Your task to perform on an android device: Open Reddit.com Image 0: 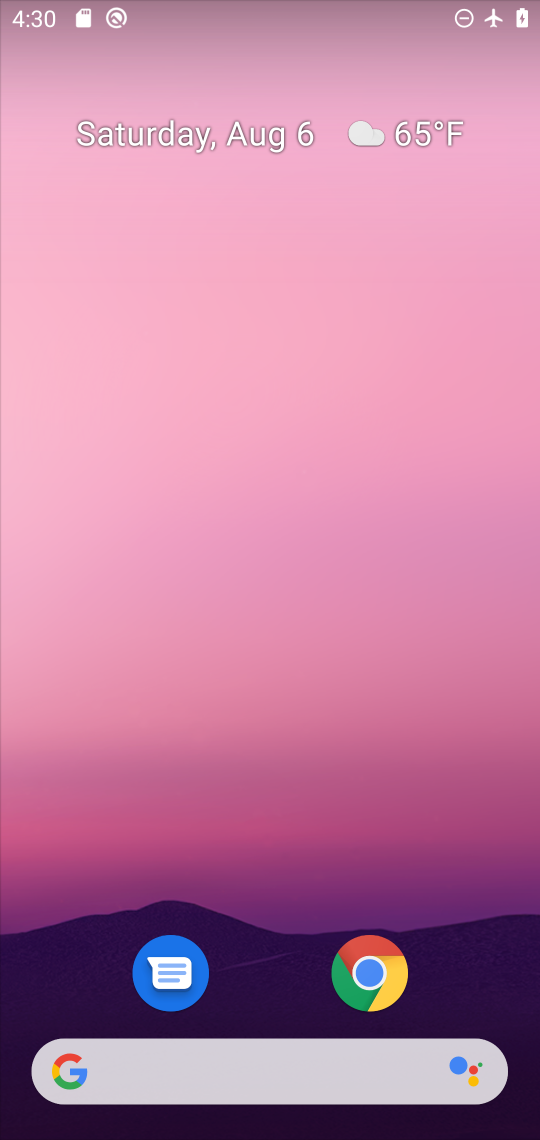
Step 0: drag from (271, 944) to (287, 166)
Your task to perform on an android device: Open Reddit.com Image 1: 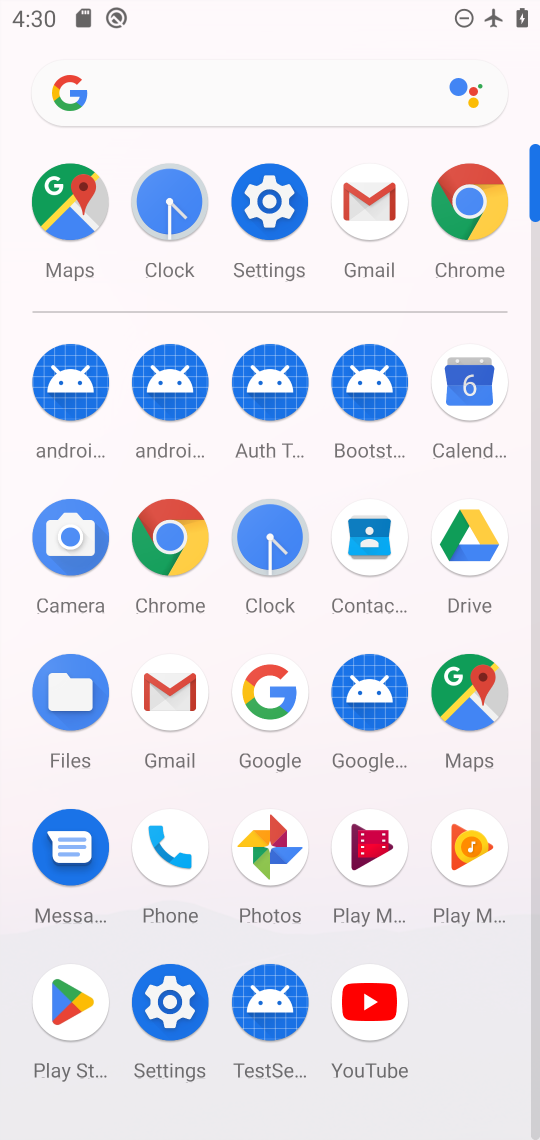
Step 1: click (169, 535)
Your task to perform on an android device: Open Reddit.com Image 2: 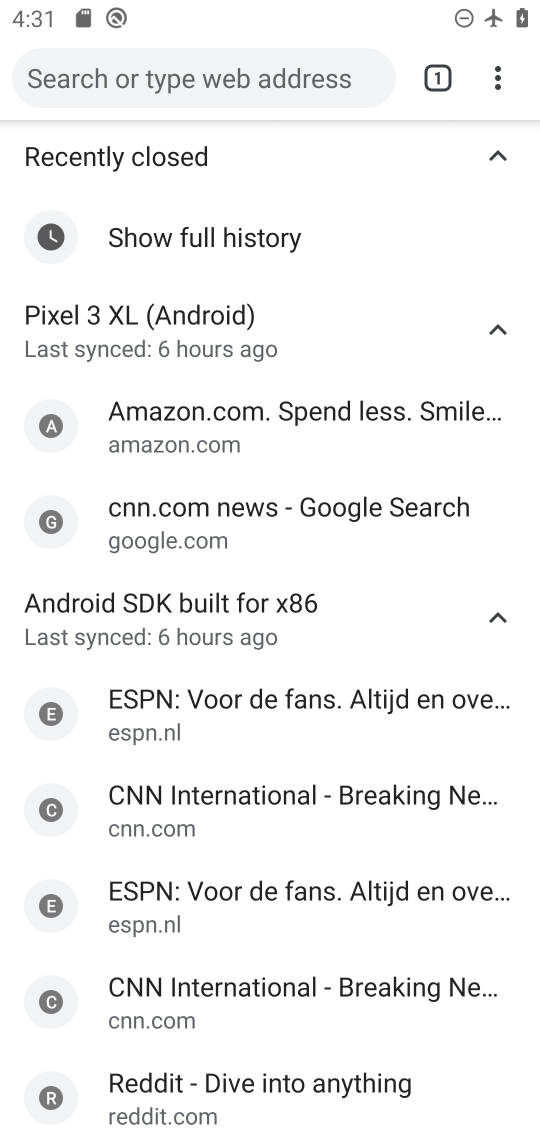
Step 2: click (233, 84)
Your task to perform on an android device: Open Reddit.com Image 3: 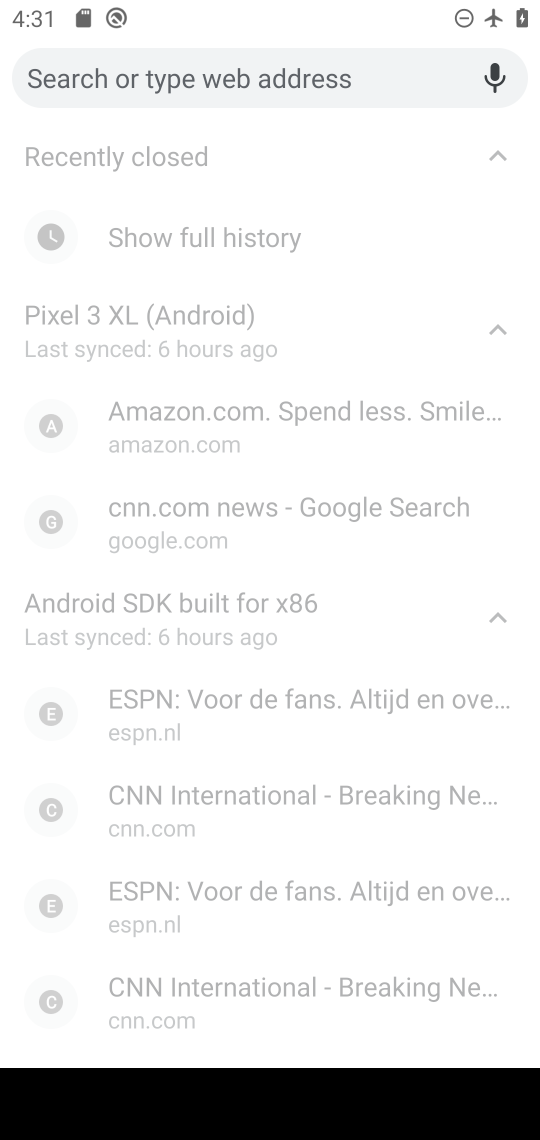
Step 3: type "reddit.com"
Your task to perform on an android device: Open Reddit.com Image 4: 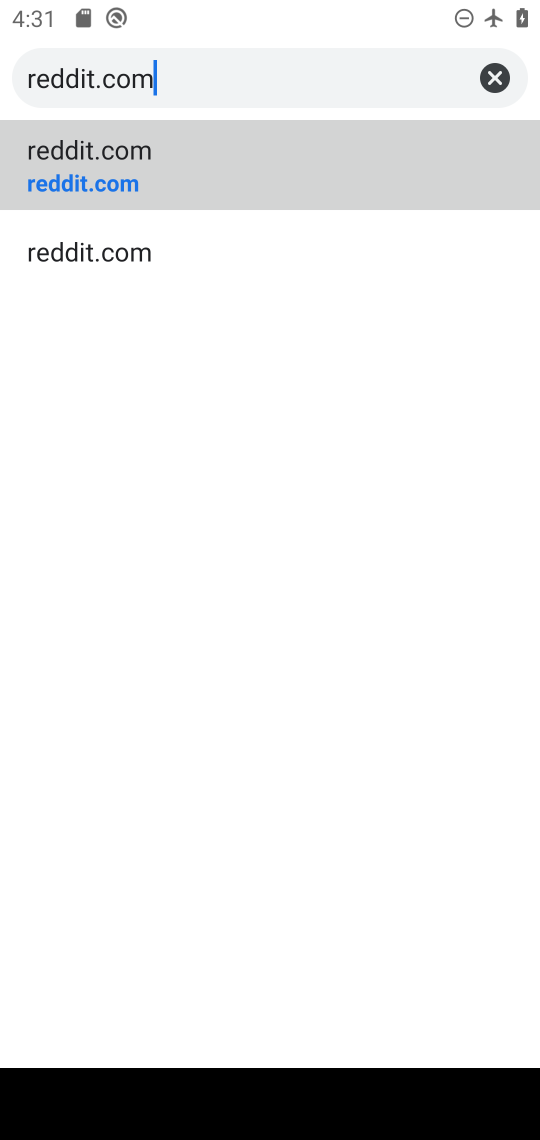
Step 4: click (155, 174)
Your task to perform on an android device: Open Reddit.com Image 5: 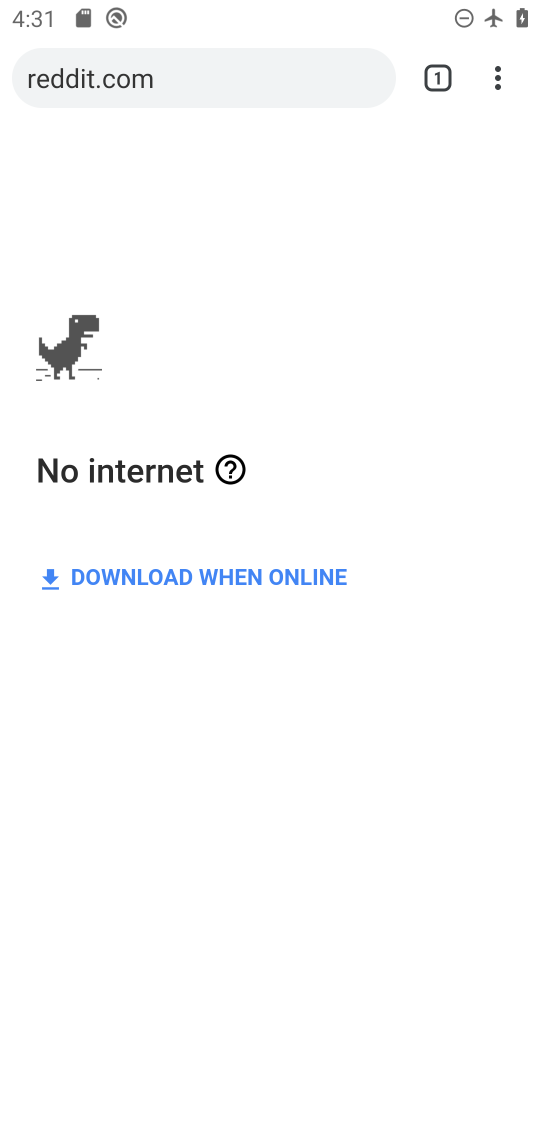
Step 5: task complete